Your task to perform on an android device: find photos in the google photos app Image 0: 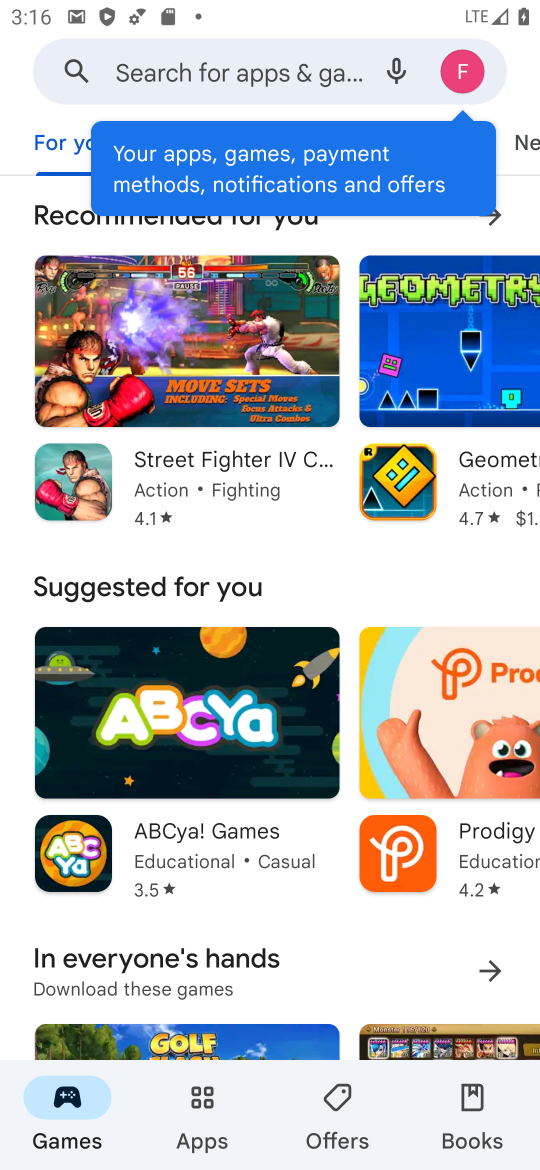
Step 0: press home button
Your task to perform on an android device: find photos in the google photos app Image 1: 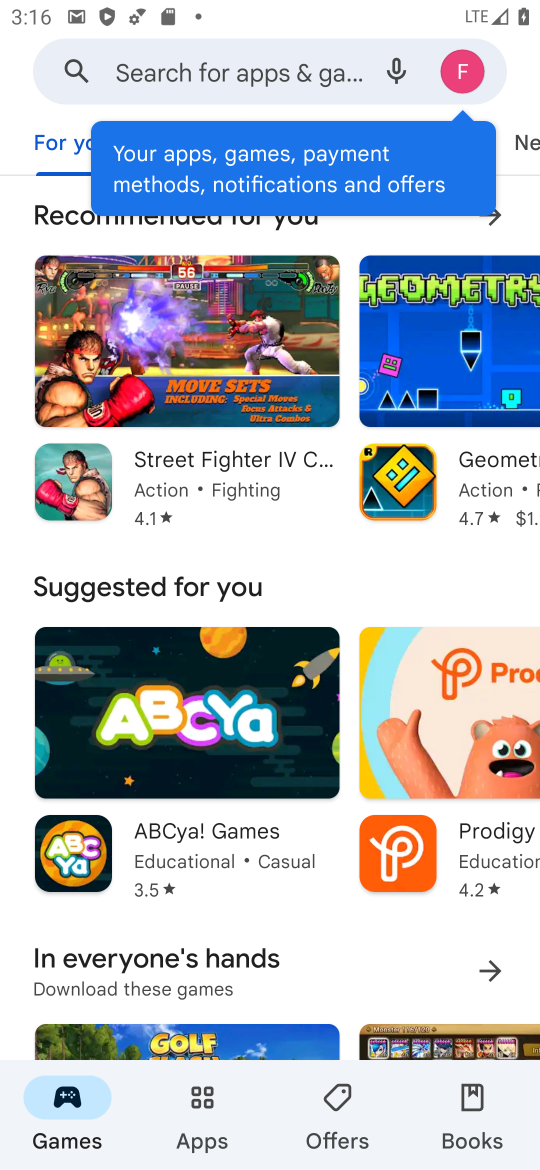
Step 1: press home button
Your task to perform on an android device: find photos in the google photos app Image 2: 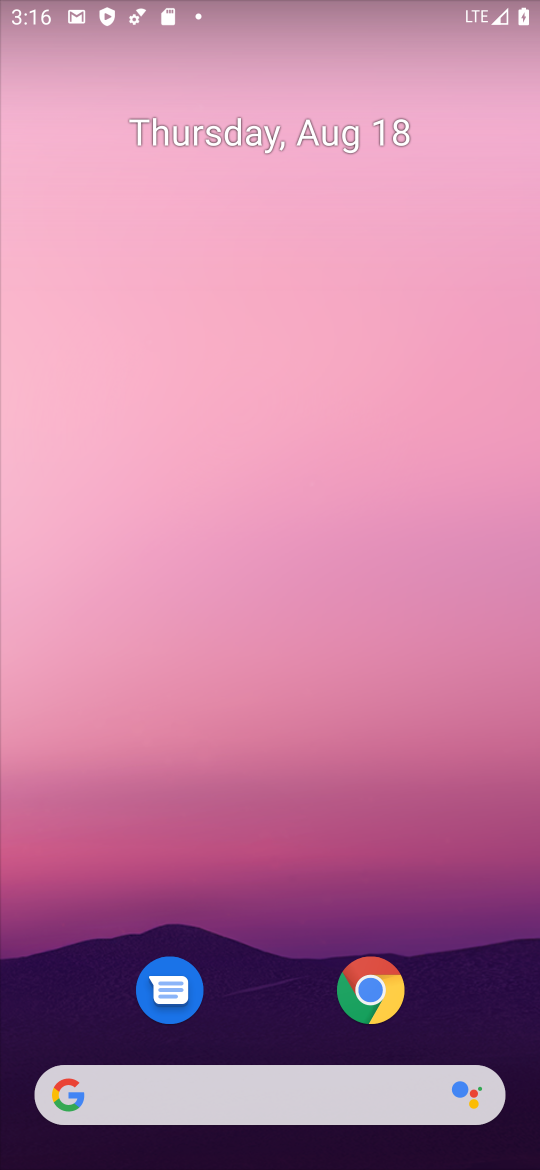
Step 2: drag from (243, 862) to (305, 193)
Your task to perform on an android device: find photos in the google photos app Image 3: 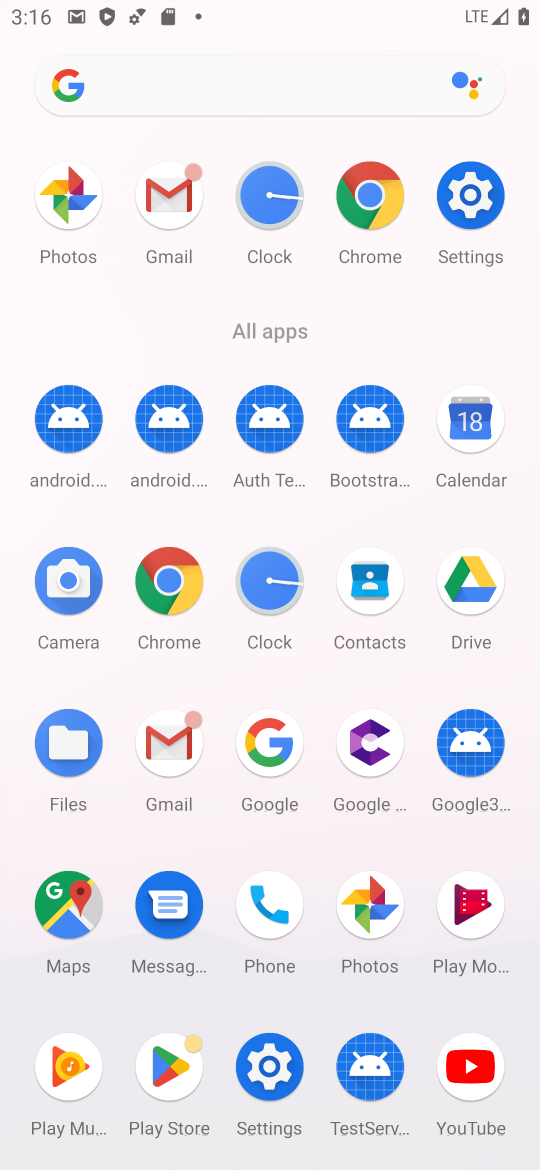
Step 3: click (358, 915)
Your task to perform on an android device: find photos in the google photos app Image 4: 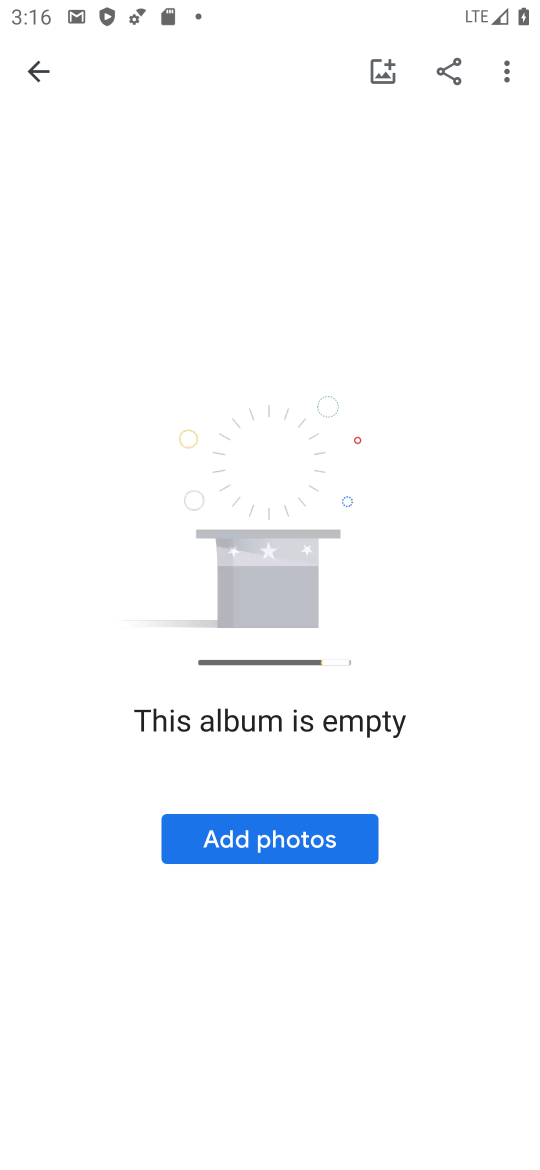
Step 4: press back button
Your task to perform on an android device: find photos in the google photos app Image 5: 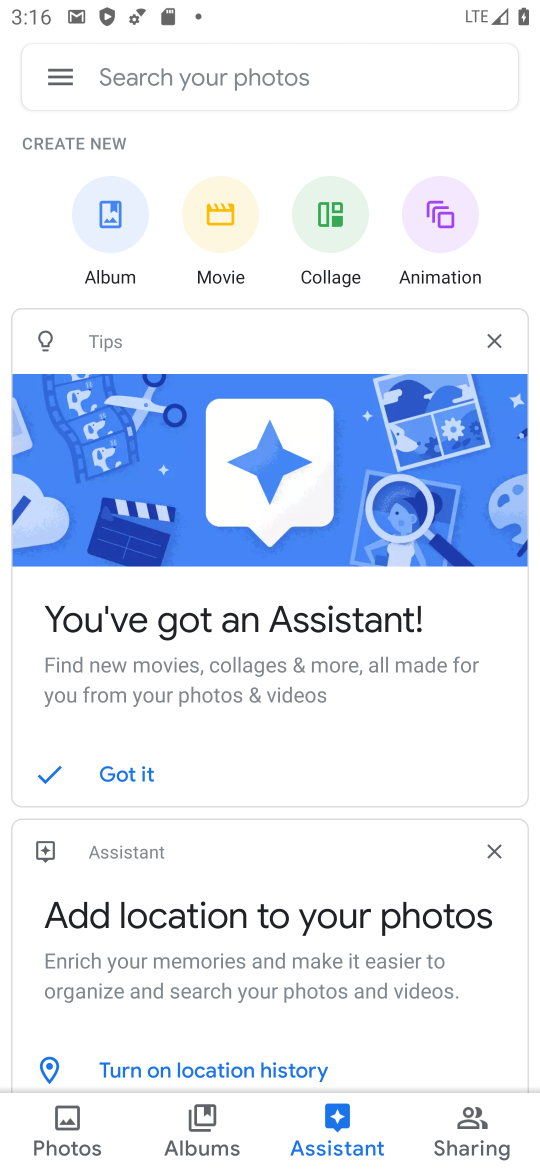
Step 5: press back button
Your task to perform on an android device: find photos in the google photos app Image 6: 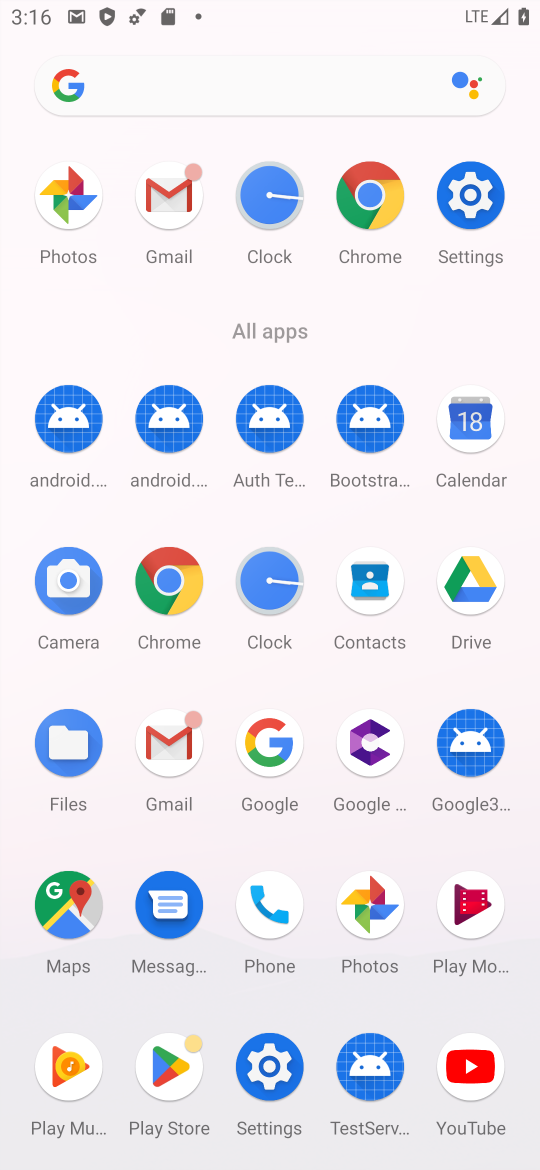
Step 6: click (355, 906)
Your task to perform on an android device: find photos in the google photos app Image 7: 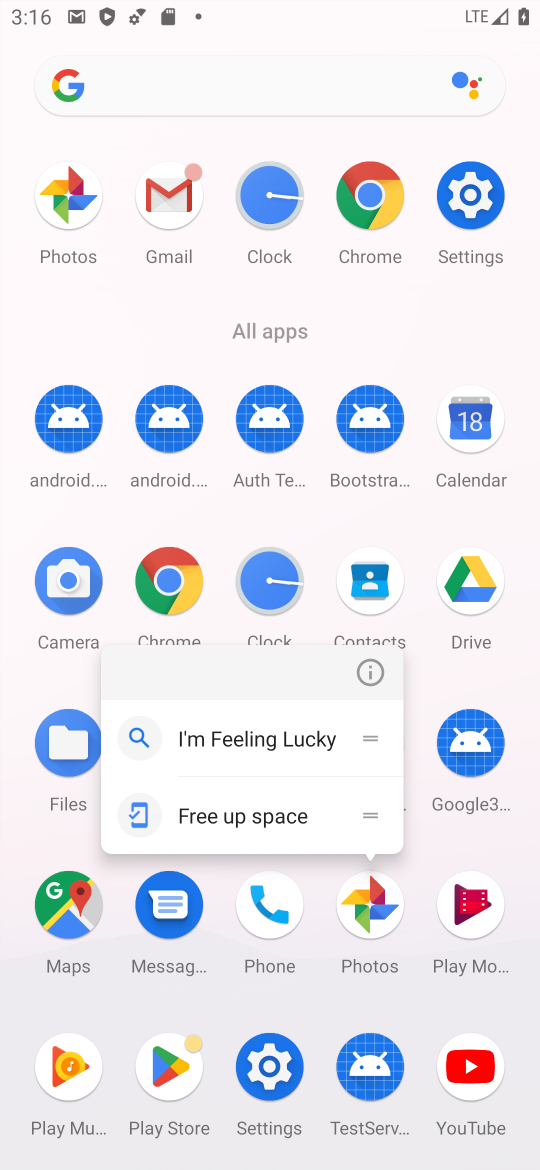
Step 7: click (356, 906)
Your task to perform on an android device: find photos in the google photos app Image 8: 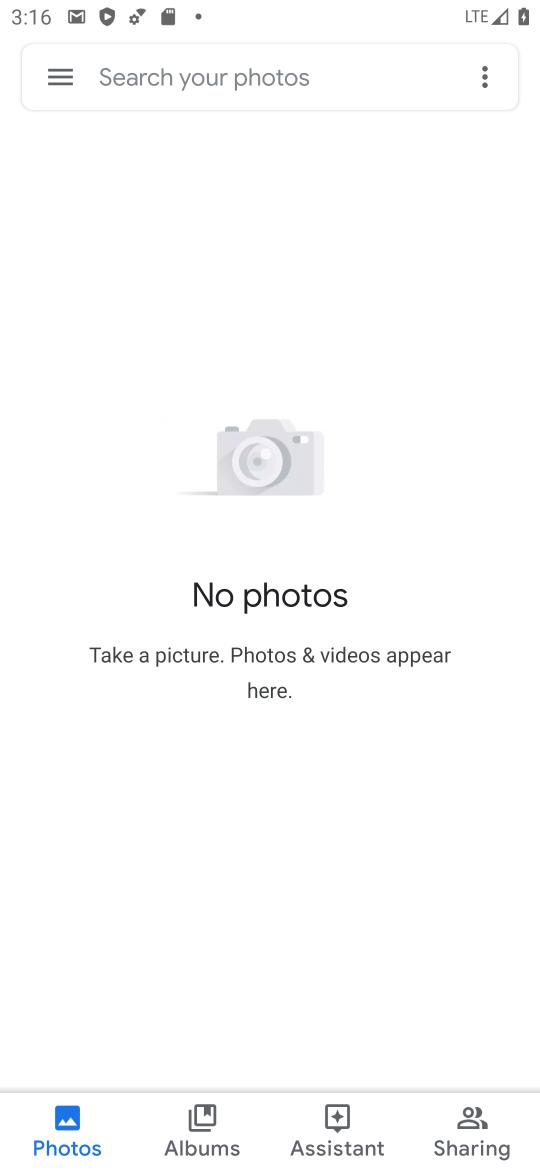
Step 8: task complete